Your task to perform on an android device: star an email in the gmail app Image 0: 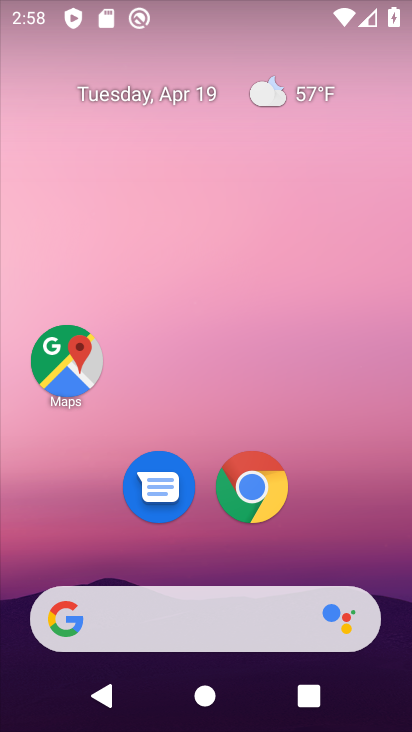
Step 0: drag from (344, 163) to (344, 115)
Your task to perform on an android device: star an email in the gmail app Image 1: 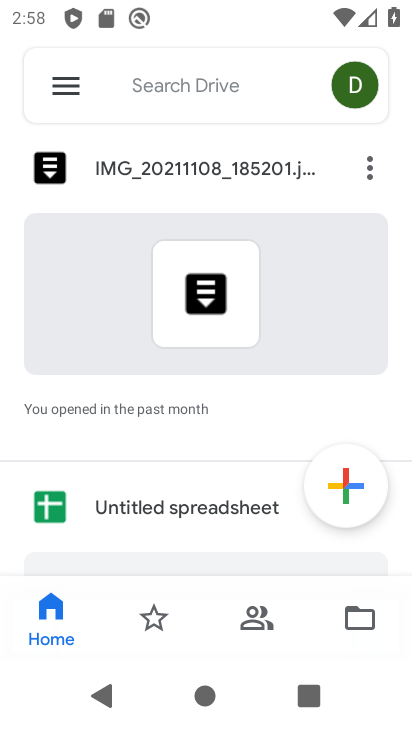
Step 1: press home button
Your task to perform on an android device: star an email in the gmail app Image 2: 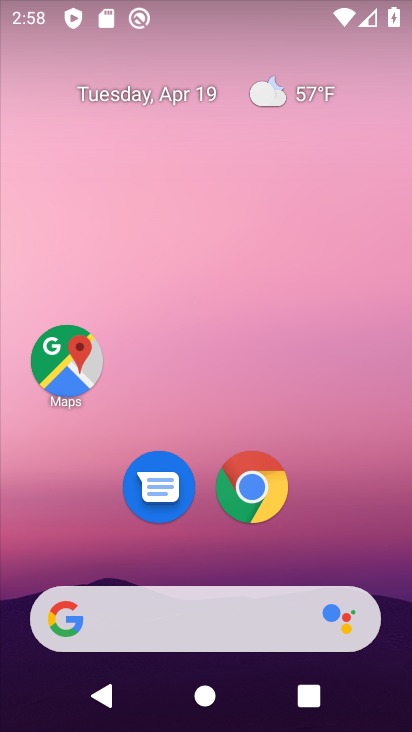
Step 2: drag from (352, 550) to (341, 208)
Your task to perform on an android device: star an email in the gmail app Image 3: 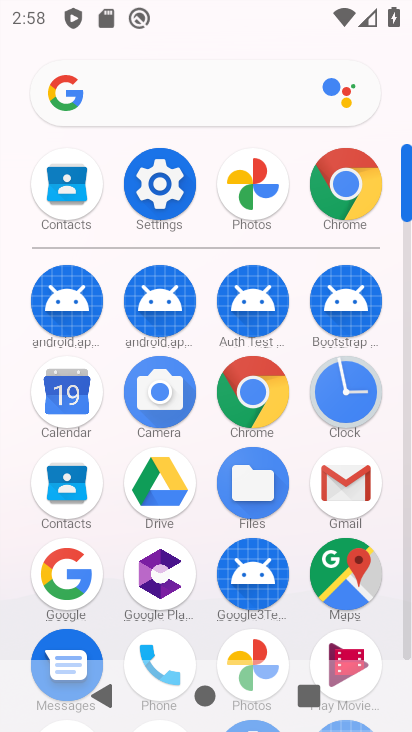
Step 3: click (330, 497)
Your task to perform on an android device: star an email in the gmail app Image 4: 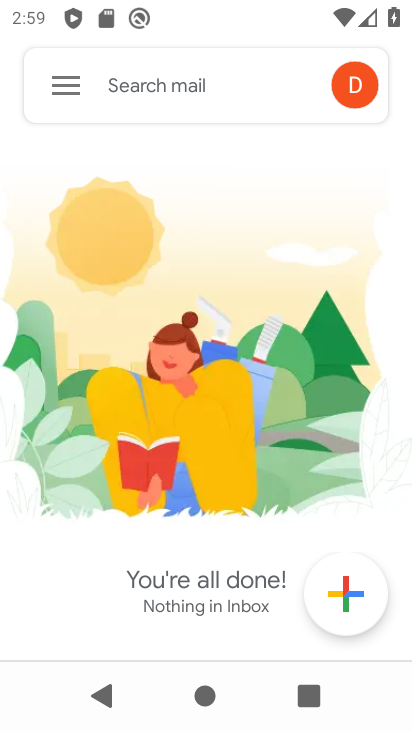
Step 4: task complete